Your task to perform on an android device: Go to Google maps Image 0: 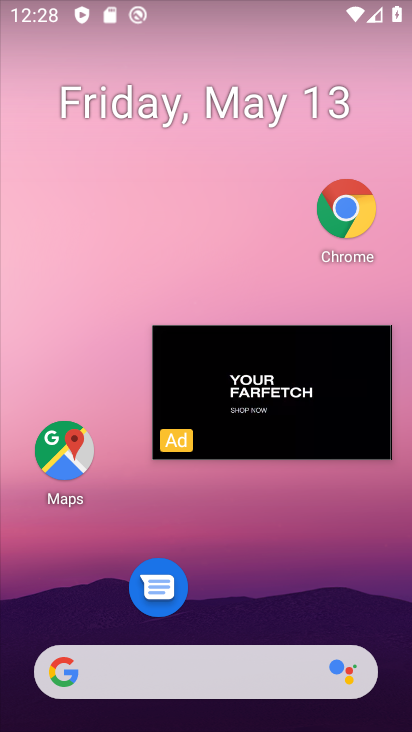
Step 0: click (270, 395)
Your task to perform on an android device: Go to Google maps Image 1: 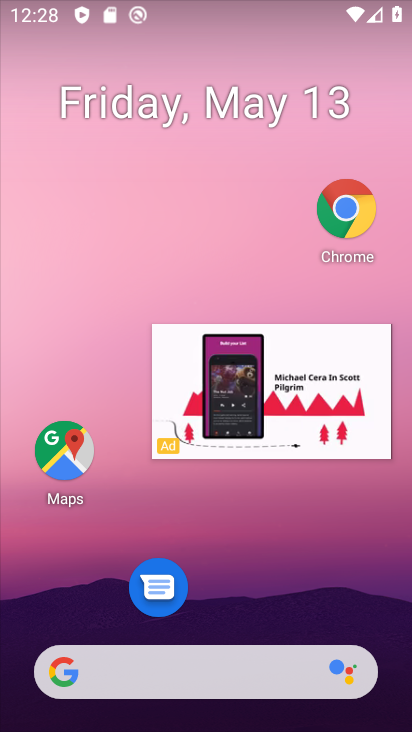
Step 1: click (216, 391)
Your task to perform on an android device: Go to Google maps Image 2: 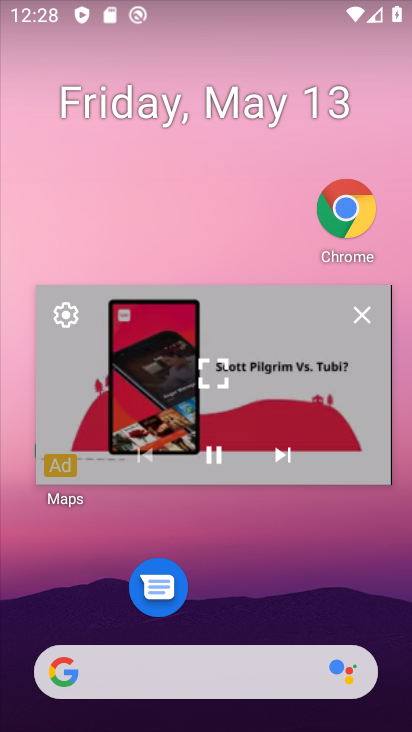
Step 2: click (208, 366)
Your task to perform on an android device: Go to Google maps Image 3: 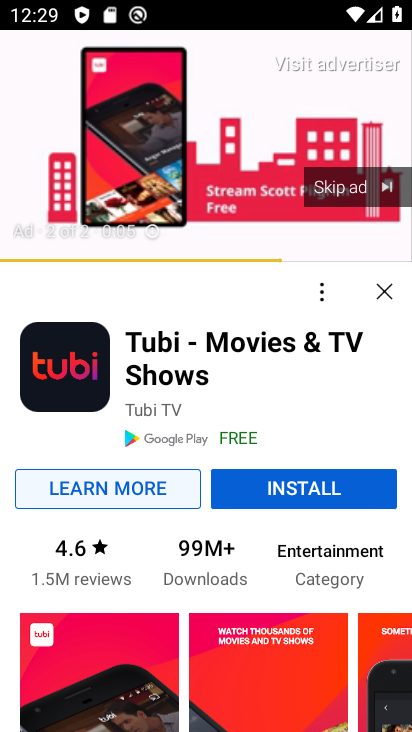
Step 3: click (195, 143)
Your task to perform on an android device: Go to Google maps Image 4: 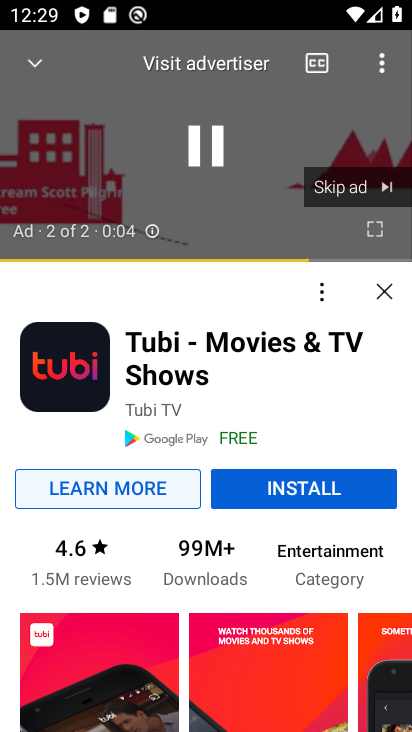
Step 4: click (198, 143)
Your task to perform on an android device: Go to Google maps Image 5: 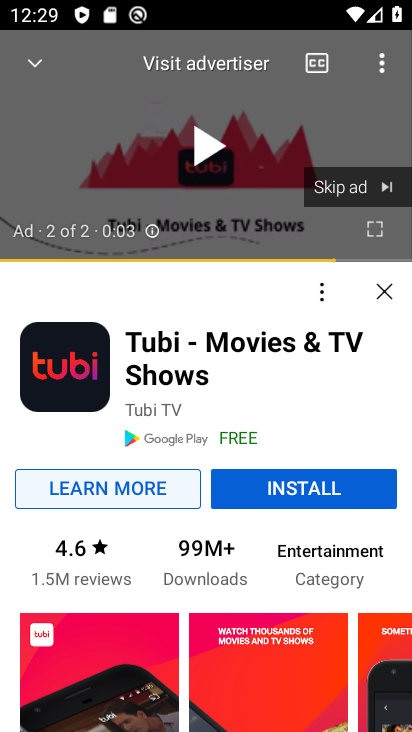
Step 5: press home button
Your task to perform on an android device: Go to Google maps Image 6: 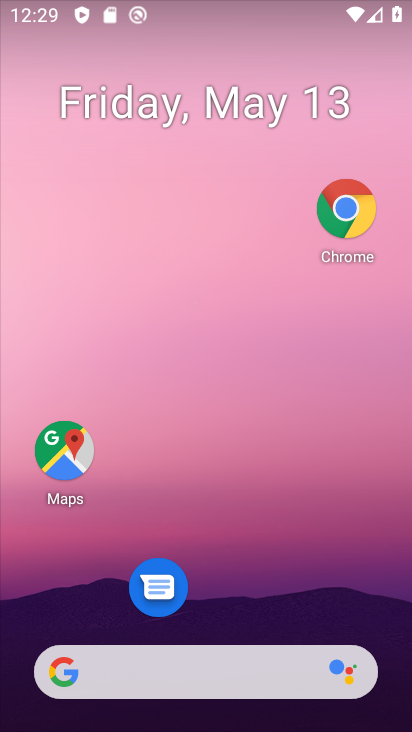
Step 6: click (76, 445)
Your task to perform on an android device: Go to Google maps Image 7: 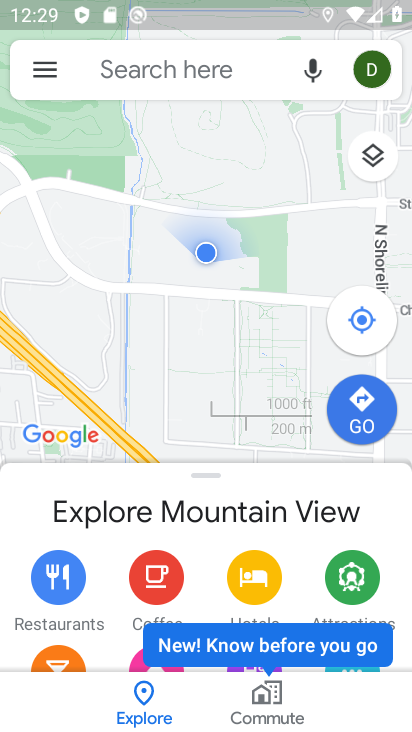
Step 7: task complete